Your task to perform on an android device: Open Google Chrome and open the bookmarks view Image 0: 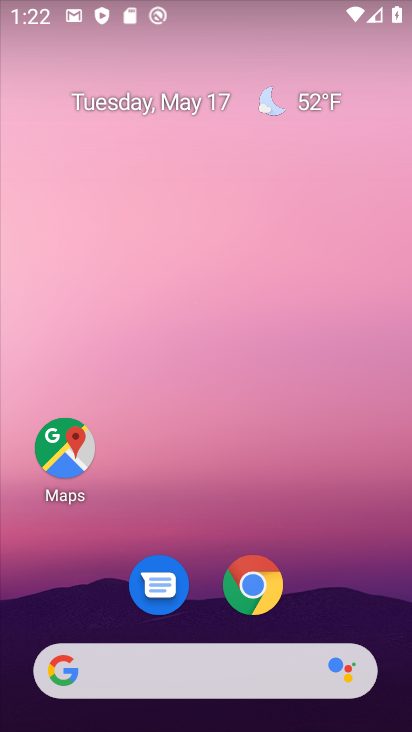
Step 0: click (273, 585)
Your task to perform on an android device: Open Google Chrome and open the bookmarks view Image 1: 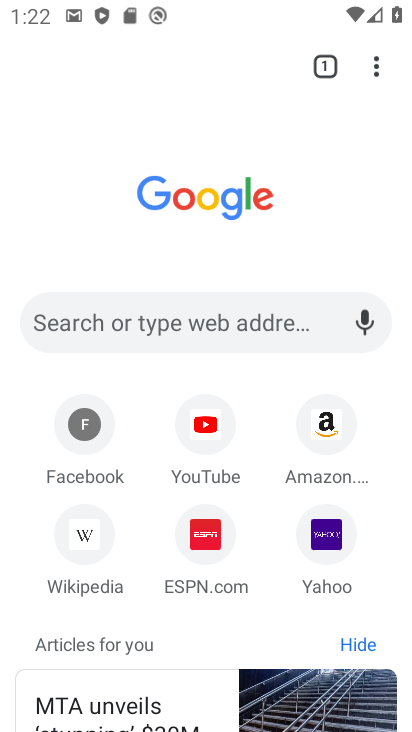
Step 1: click (375, 64)
Your task to perform on an android device: Open Google Chrome and open the bookmarks view Image 2: 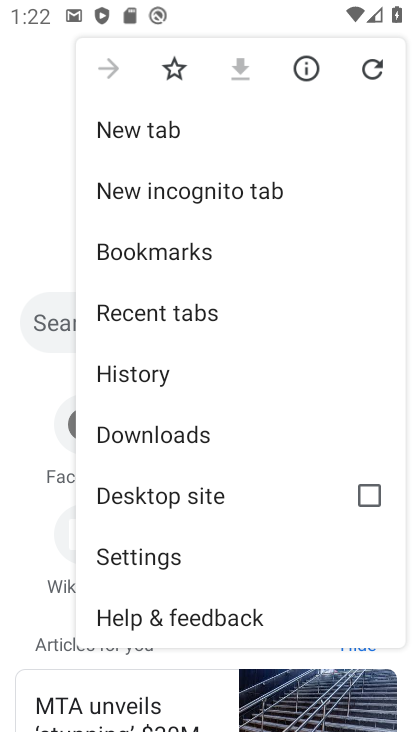
Step 2: click (196, 256)
Your task to perform on an android device: Open Google Chrome and open the bookmarks view Image 3: 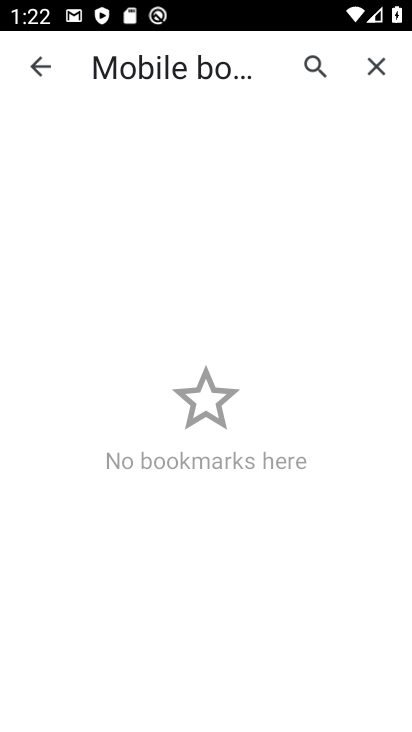
Step 3: task complete